Your task to perform on an android device: change alarm snooze length Image 0: 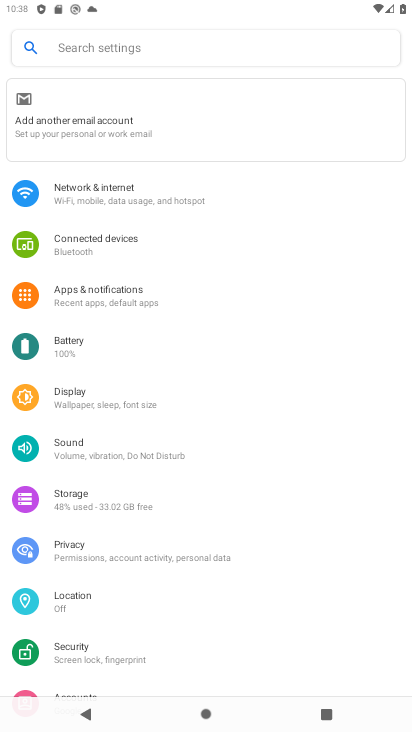
Step 0: press home button
Your task to perform on an android device: change alarm snooze length Image 1: 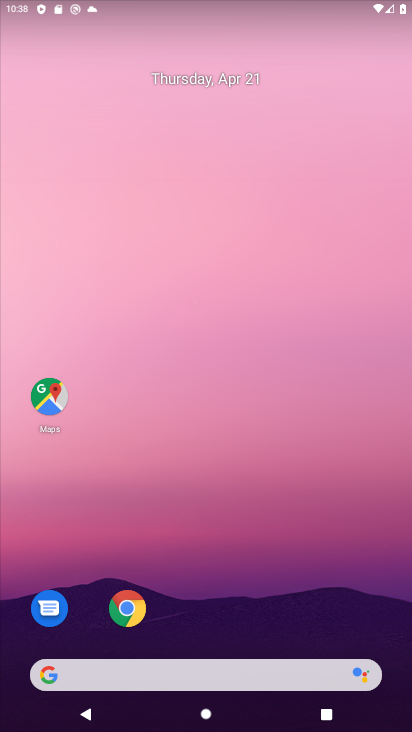
Step 1: drag from (231, 539) to (176, 111)
Your task to perform on an android device: change alarm snooze length Image 2: 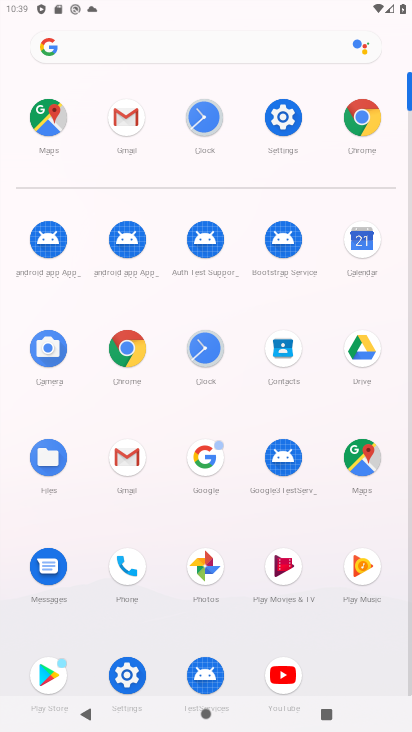
Step 2: click (201, 121)
Your task to perform on an android device: change alarm snooze length Image 3: 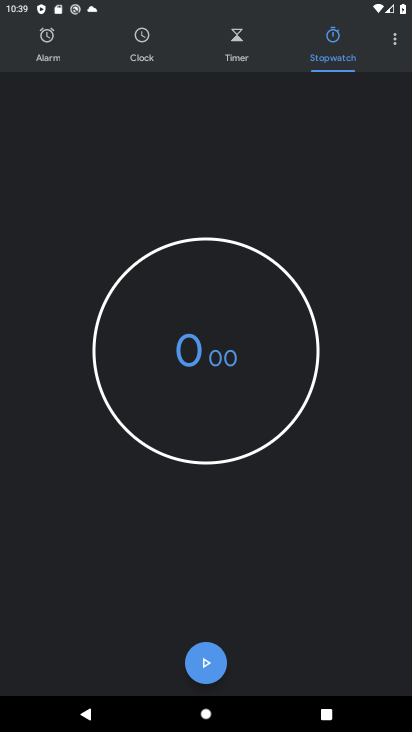
Step 3: click (395, 42)
Your task to perform on an android device: change alarm snooze length Image 4: 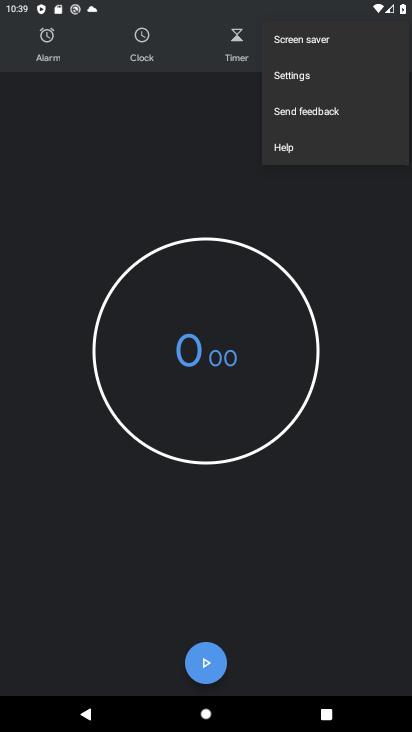
Step 4: click (300, 77)
Your task to perform on an android device: change alarm snooze length Image 5: 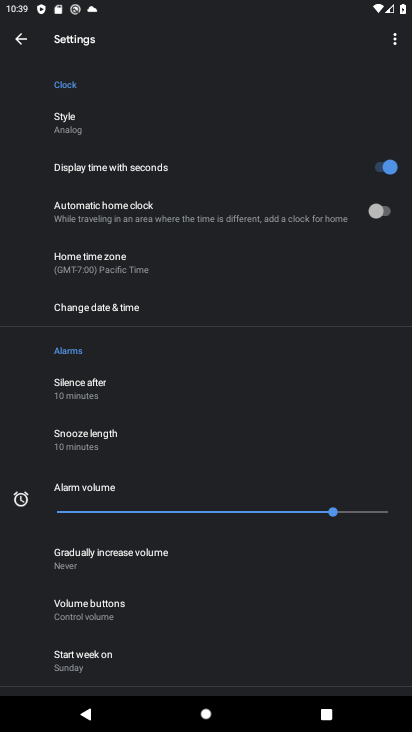
Step 5: click (100, 443)
Your task to perform on an android device: change alarm snooze length Image 6: 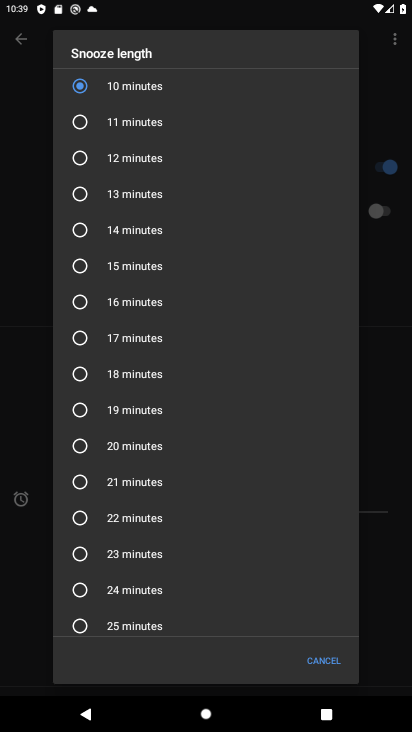
Step 6: click (118, 235)
Your task to perform on an android device: change alarm snooze length Image 7: 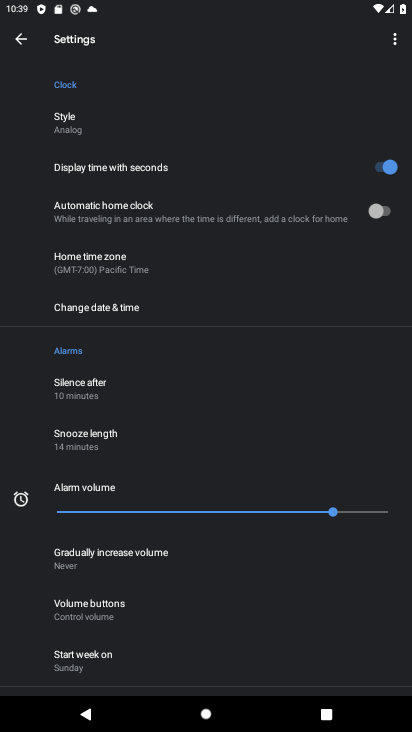
Step 7: task complete